Your task to perform on an android device: Play the last video I watched on Youtube Image 0: 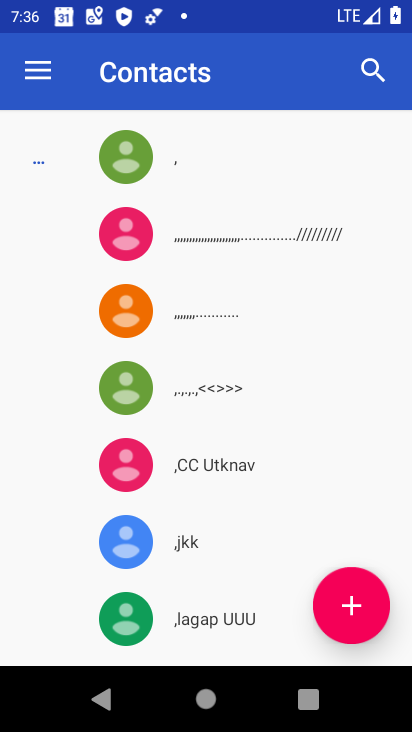
Step 0: press home button
Your task to perform on an android device: Play the last video I watched on Youtube Image 1: 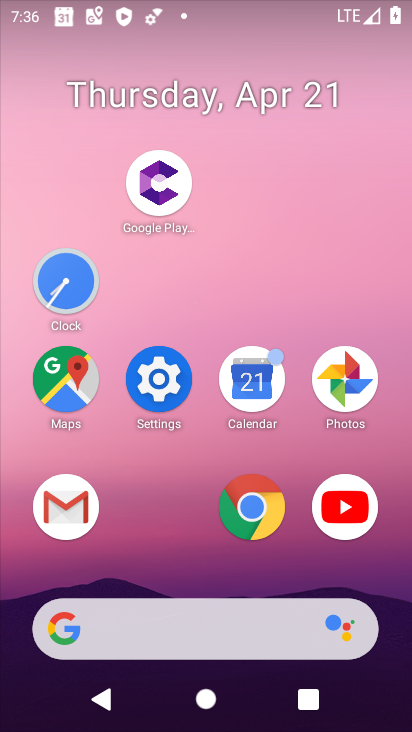
Step 1: click (343, 514)
Your task to perform on an android device: Play the last video I watched on Youtube Image 2: 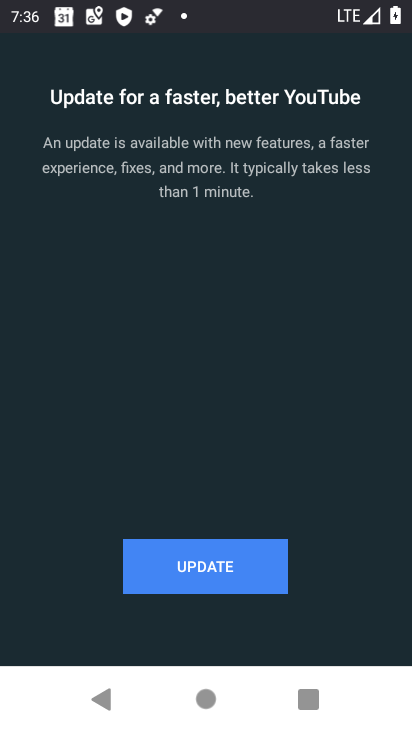
Step 2: click (206, 575)
Your task to perform on an android device: Play the last video I watched on Youtube Image 3: 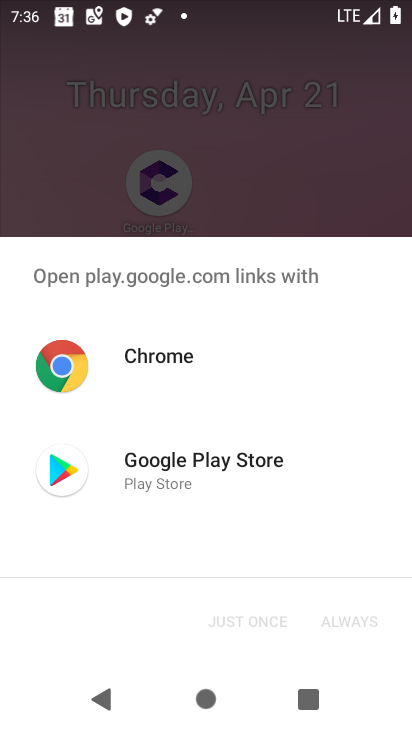
Step 3: click (156, 479)
Your task to perform on an android device: Play the last video I watched on Youtube Image 4: 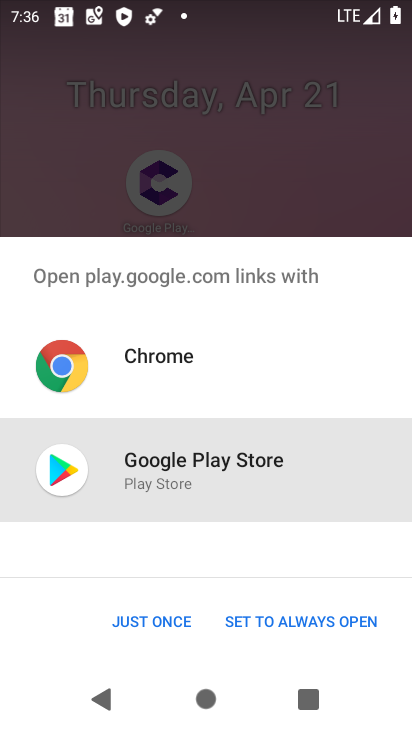
Step 4: click (165, 622)
Your task to perform on an android device: Play the last video I watched on Youtube Image 5: 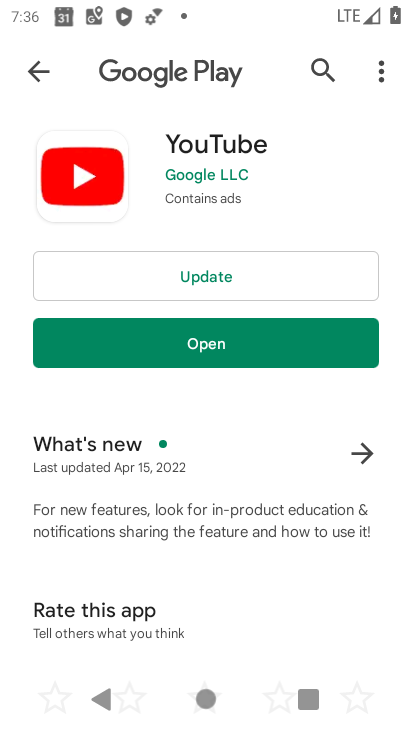
Step 5: click (194, 268)
Your task to perform on an android device: Play the last video I watched on Youtube Image 6: 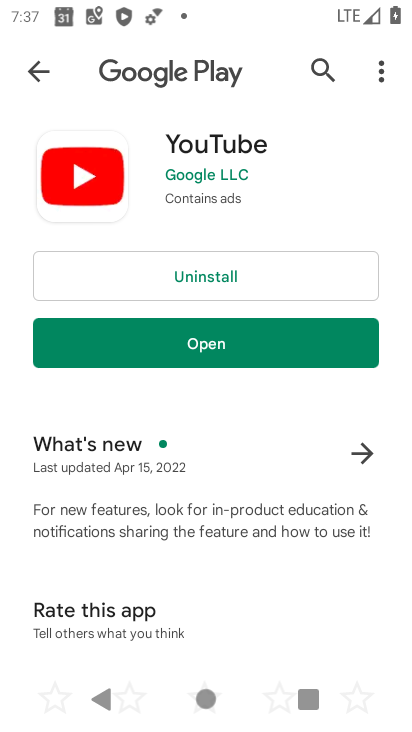
Step 6: click (212, 346)
Your task to perform on an android device: Play the last video I watched on Youtube Image 7: 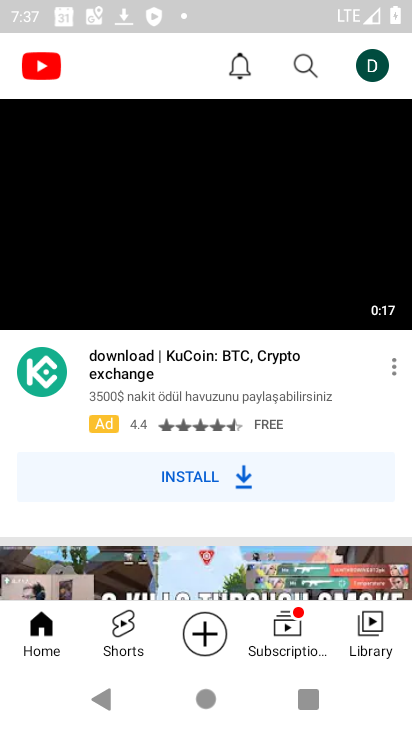
Step 7: click (366, 626)
Your task to perform on an android device: Play the last video I watched on Youtube Image 8: 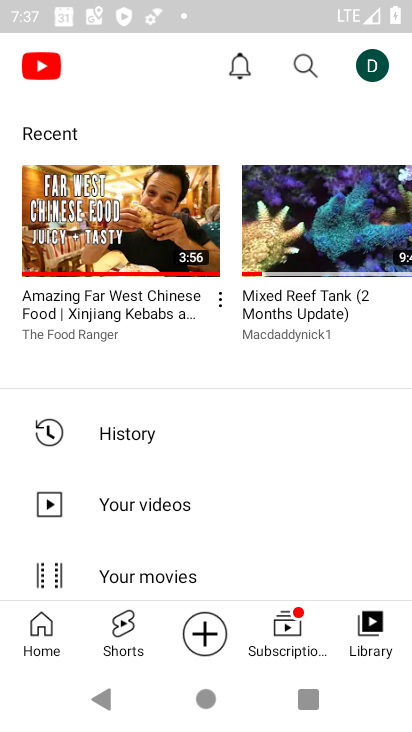
Step 8: click (129, 431)
Your task to perform on an android device: Play the last video I watched on Youtube Image 9: 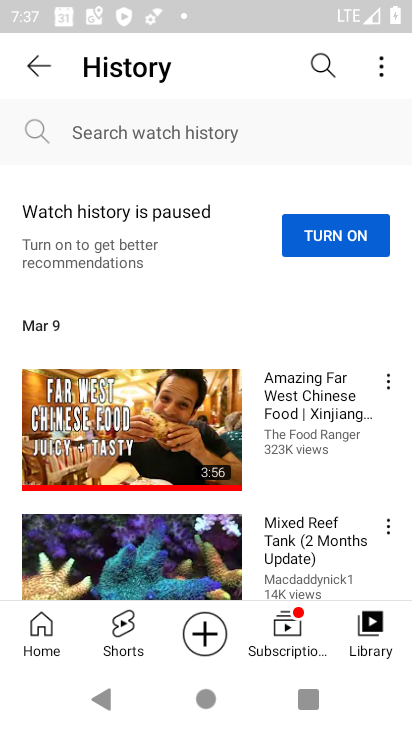
Step 9: click (281, 392)
Your task to perform on an android device: Play the last video I watched on Youtube Image 10: 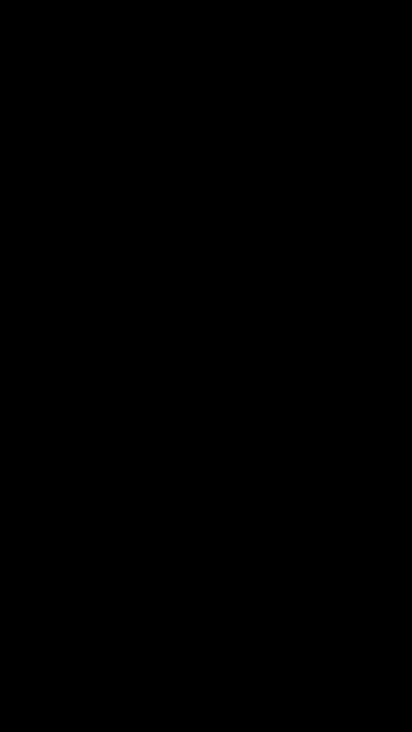
Step 10: task complete